Your task to perform on an android device: Open the Play Movies app and select the watchlist tab. Image 0: 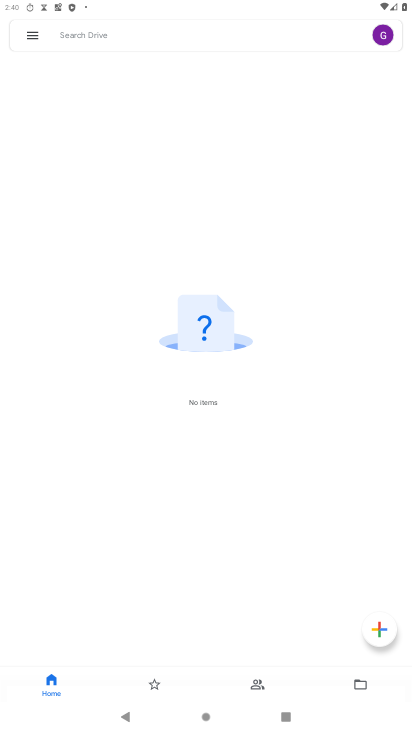
Step 0: press home button
Your task to perform on an android device: Open the Play Movies app and select the watchlist tab. Image 1: 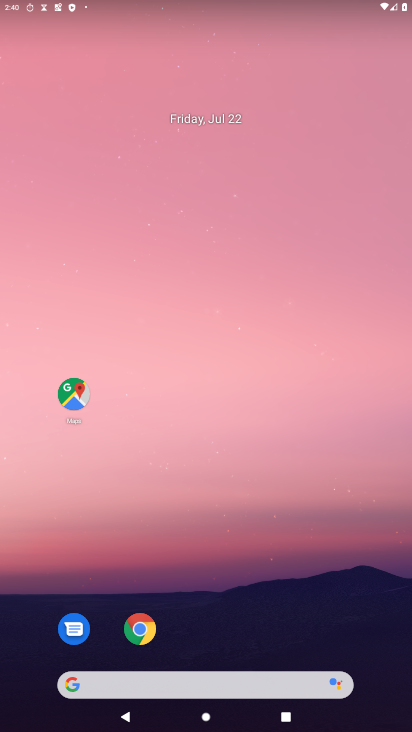
Step 1: drag from (257, 460) to (282, 0)
Your task to perform on an android device: Open the Play Movies app and select the watchlist tab. Image 2: 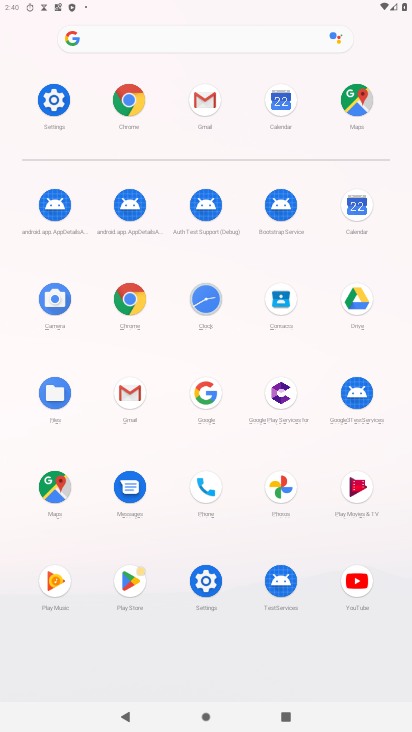
Step 2: click (362, 483)
Your task to perform on an android device: Open the Play Movies app and select the watchlist tab. Image 3: 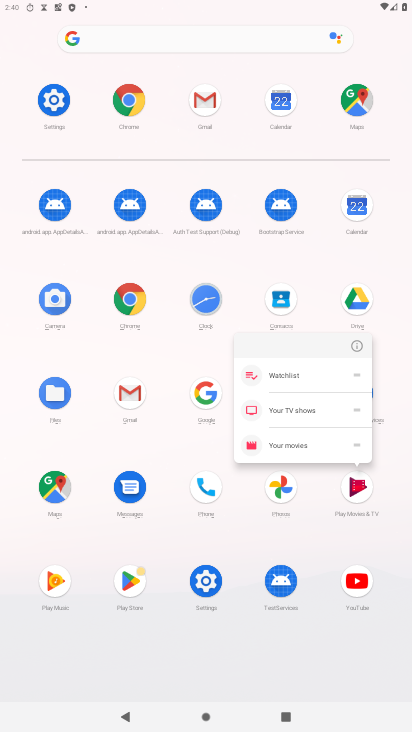
Step 3: click (359, 484)
Your task to perform on an android device: Open the Play Movies app and select the watchlist tab. Image 4: 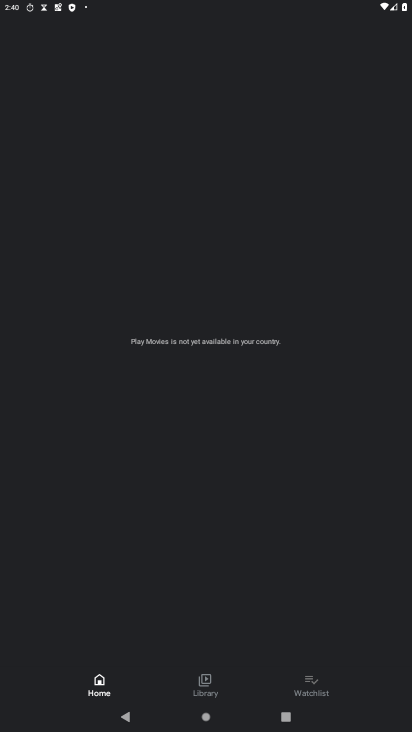
Step 4: click (317, 688)
Your task to perform on an android device: Open the Play Movies app and select the watchlist tab. Image 5: 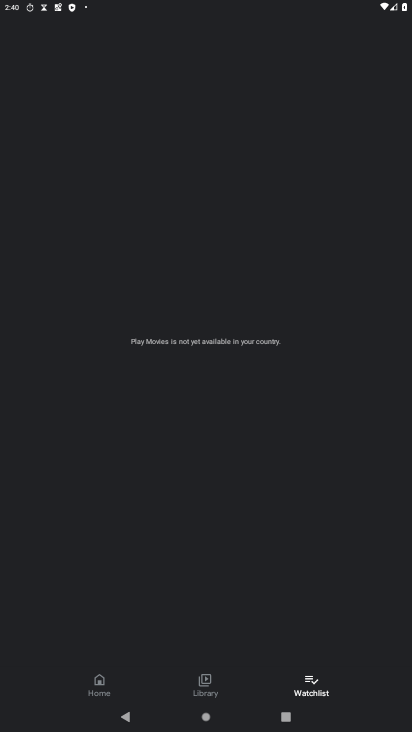
Step 5: task complete